Your task to perform on an android device: Go to calendar. Show me events next week Image 0: 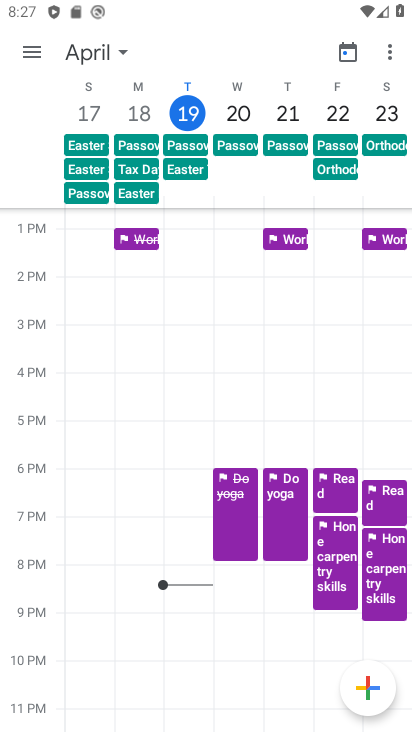
Step 0: press home button
Your task to perform on an android device: Go to calendar. Show me events next week Image 1: 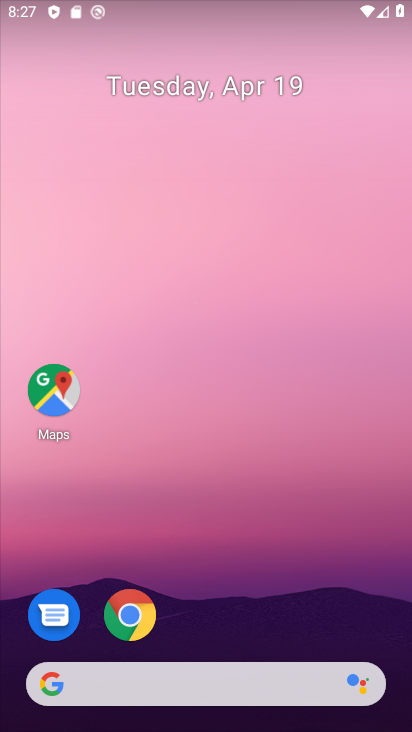
Step 1: drag from (208, 521) to (290, 28)
Your task to perform on an android device: Go to calendar. Show me events next week Image 2: 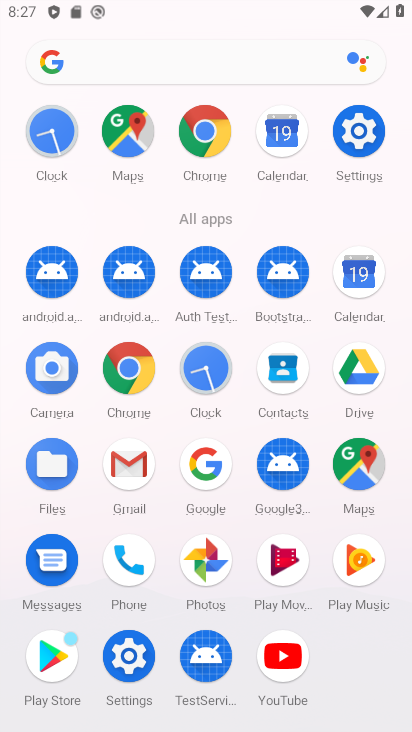
Step 2: click (353, 283)
Your task to perform on an android device: Go to calendar. Show me events next week Image 3: 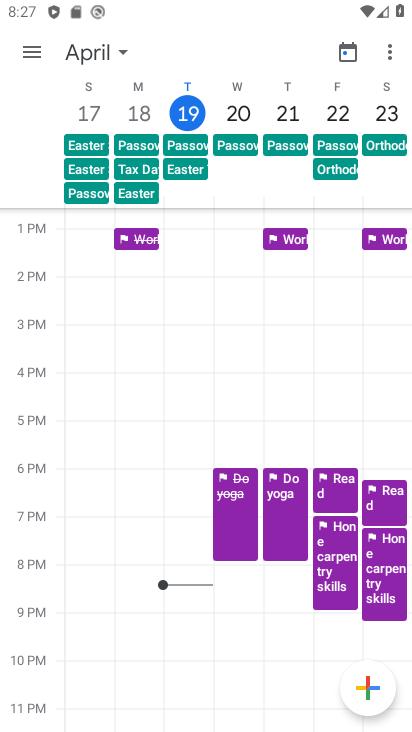
Step 3: drag from (348, 302) to (73, 312)
Your task to perform on an android device: Go to calendar. Show me events next week Image 4: 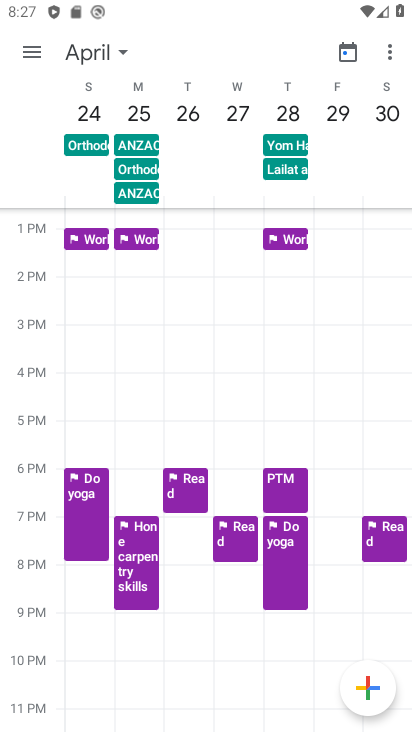
Step 4: click (27, 52)
Your task to perform on an android device: Go to calendar. Show me events next week Image 5: 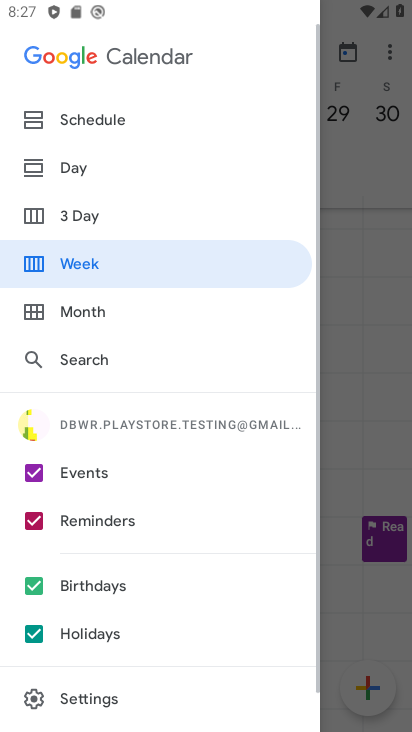
Step 5: click (29, 524)
Your task to perform on an android device: Go to calendar. Show me events next week Image 6: 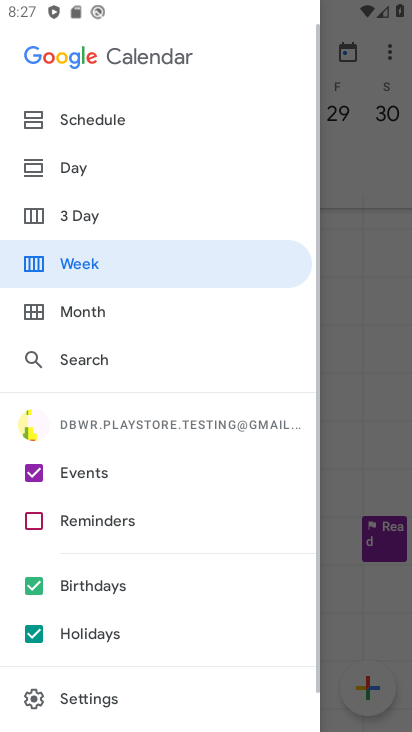
Step 6: click (32, 581)
Your task to perform on an android device: Go to calendar. Show me events next week Image 7: 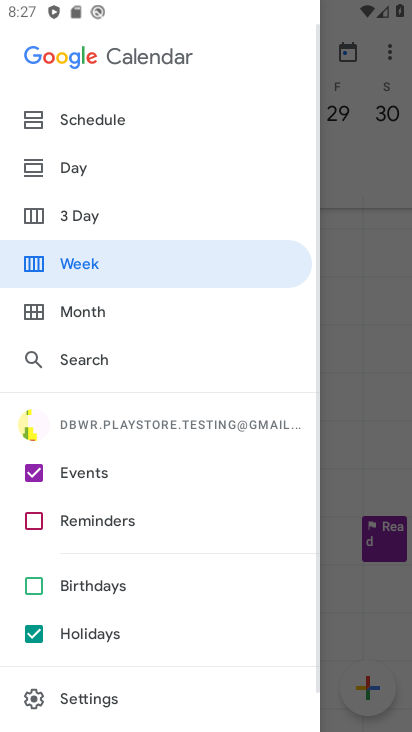
Step 7: click (29, 643)
Your task to perform on an android device: Go to calendar. Show me events next week Image 8: 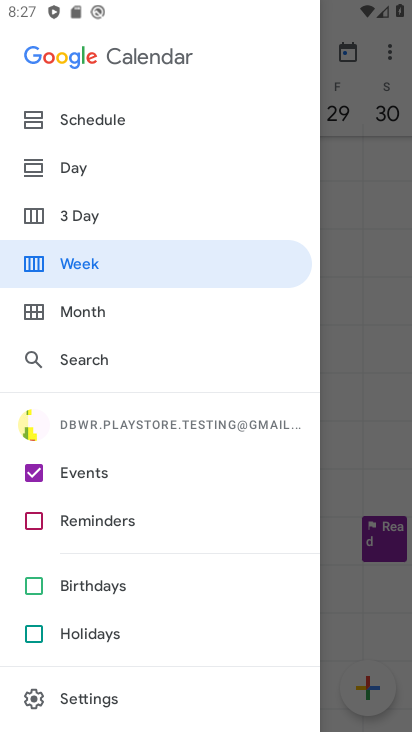
Step 8: click (353, 390)
Your task to perform on an android device: Go to calendar. Show me events next week Image 9: 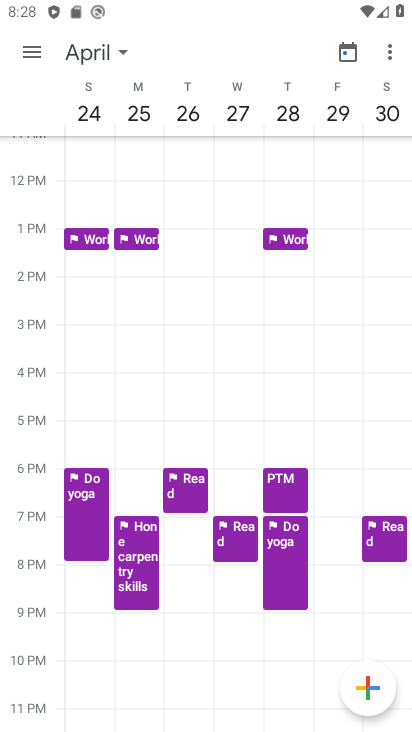
Step 9: task complete